Your task to perform on an android device: Go to Yahoo.com Image 0: 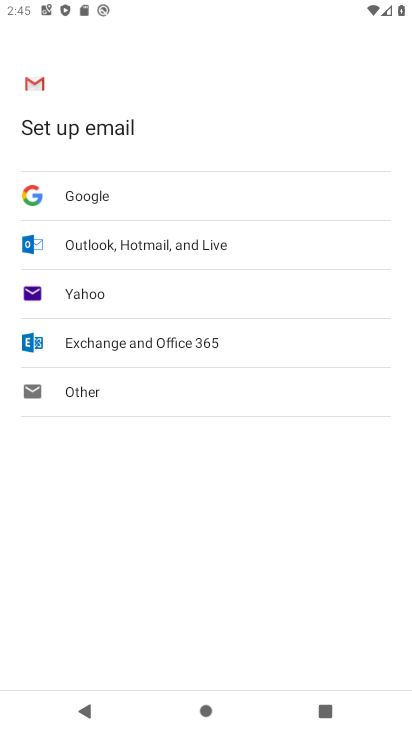
Step 0: click (128, 597)
Your task to perform on an android device: Go to Yahoo.com Image 1: 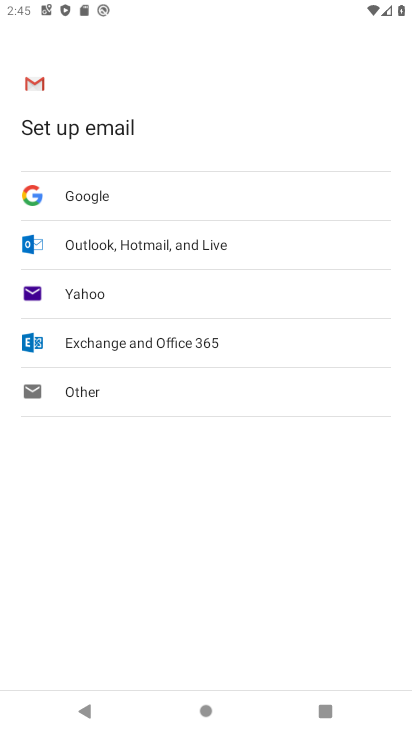
Step 1: press home button
Your task to perform on an android device: Go to Yahoo.com Image 2: 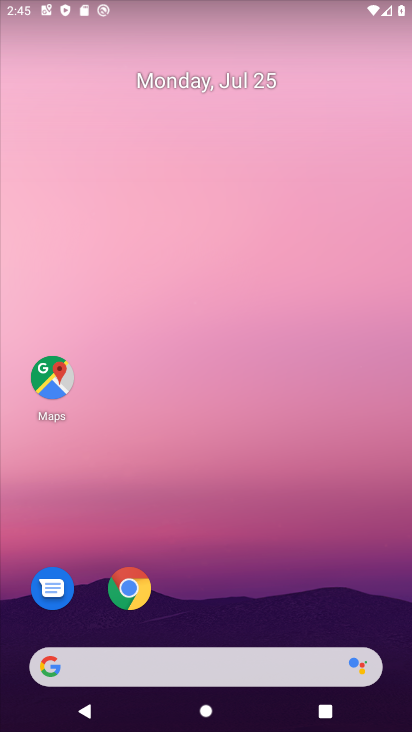
Step 2: click (131, 593)
Your task to perform on an android device: Go to Yahoo.com Image 3: 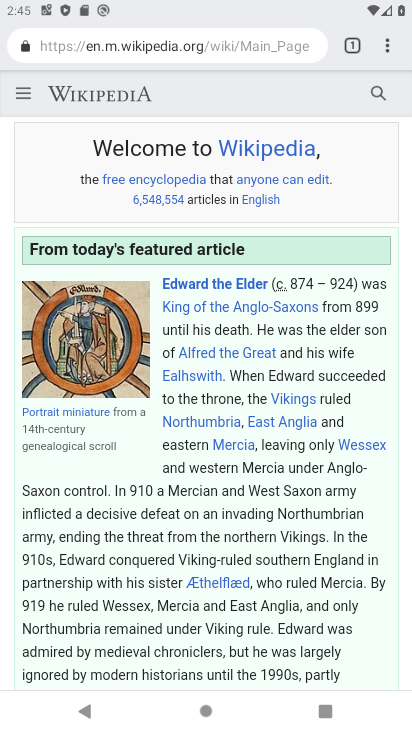
Step 3: click (344, 43)
Your task to perform on an android device: Go to Yahoo.com Image 4: 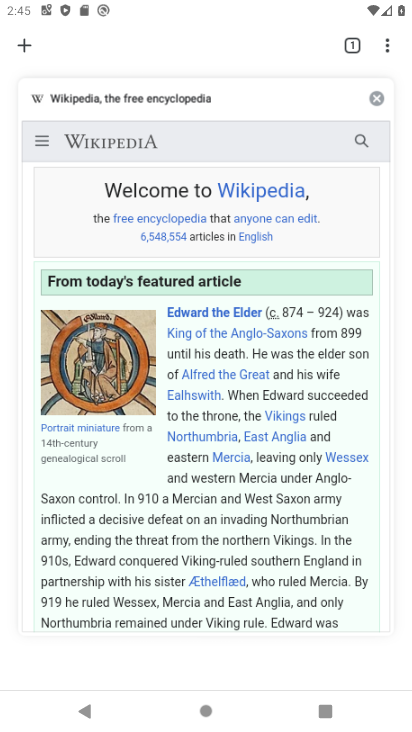
Step 4: click (27, 45)
Your task to perform on an android device: Go to Yahoo.com Image 5: 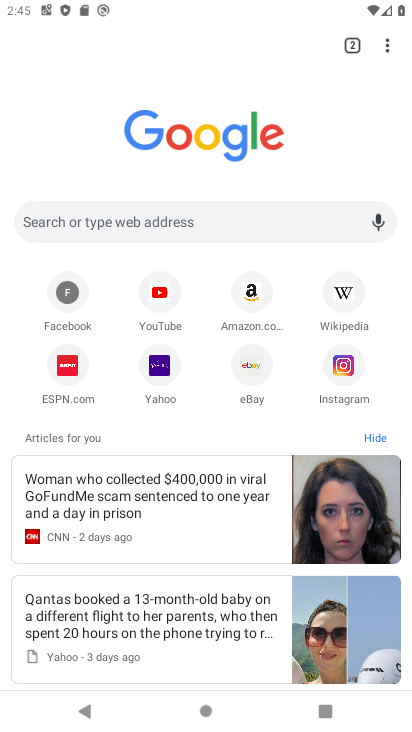
Step 5: click (159, 368)
Your task to perform on an android device: Go to Yahoo.com Image 6: 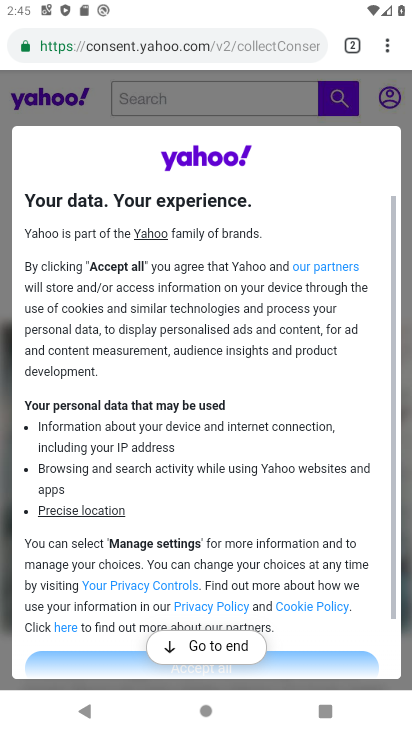
Step 6: task complete